Your task to perform on an android device: change keyboard looks Image 0: 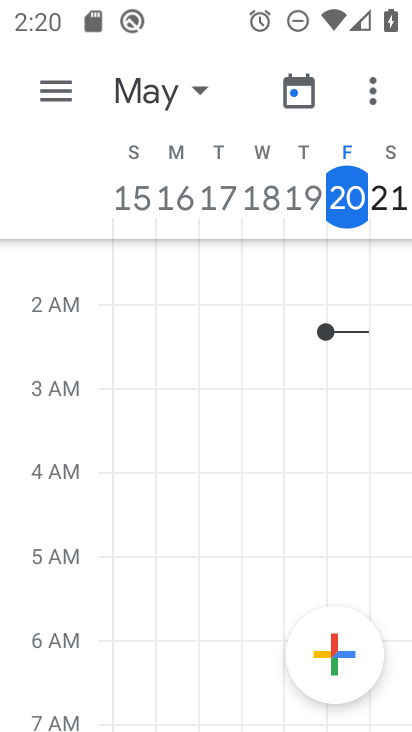
Step 0: press home button
Your task to perform on an android device: change keyboard looks Image 1: 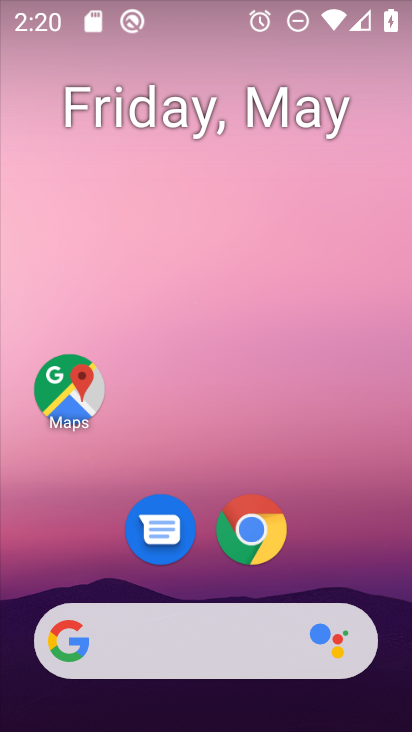
Step 1: drag from (384, 655) to (333, 141)
Your task to perform on an android device: change keyboard looks Image 2: 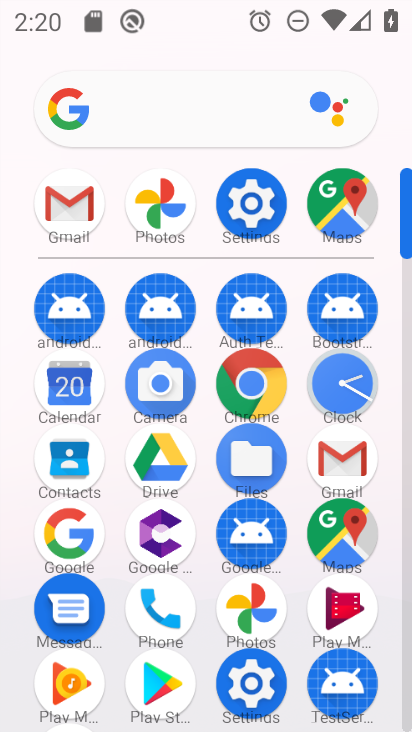
Step 2: click (256, 210)
Your task to perform on an android device: change keyboard looks Image 3: 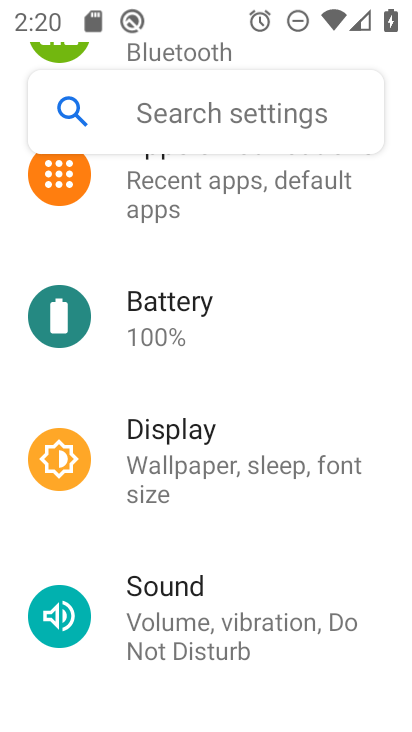
Step 3: drag from (360, 704) to (322, 314)
Your task to perform on an android device: change keyboard looks Image 4: 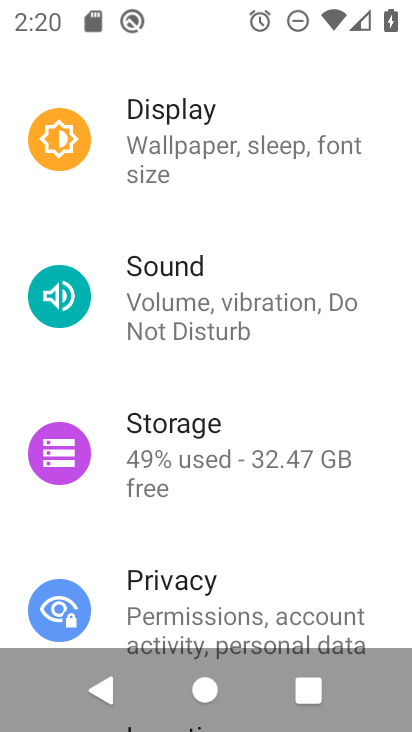
Step 4: drag from (378, 626) to (358, 211)
Your task to perform on an android device: change keyboard looks Image 5: 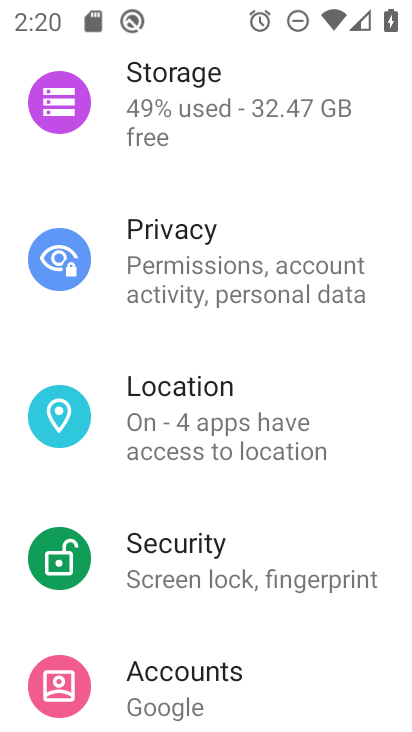
Step 5: drag from (338, 680) to (292, 292)
Your task to perform on an android device: change keyboard looks Image 6: 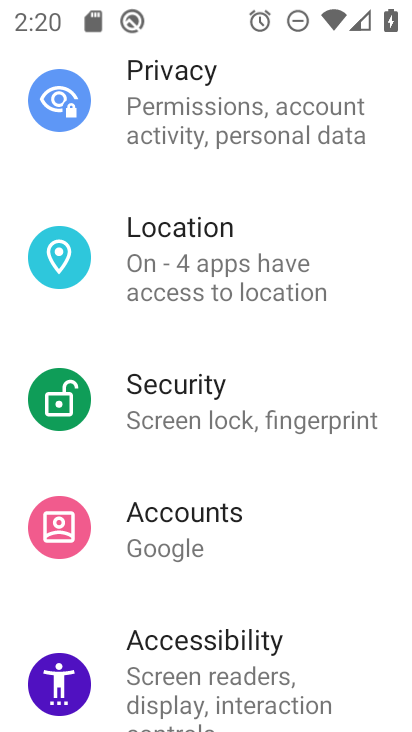
Step 6: drag from (357, 691) to (328, 317)
Your task to perform on an android device: change keyboard looks Image 7: 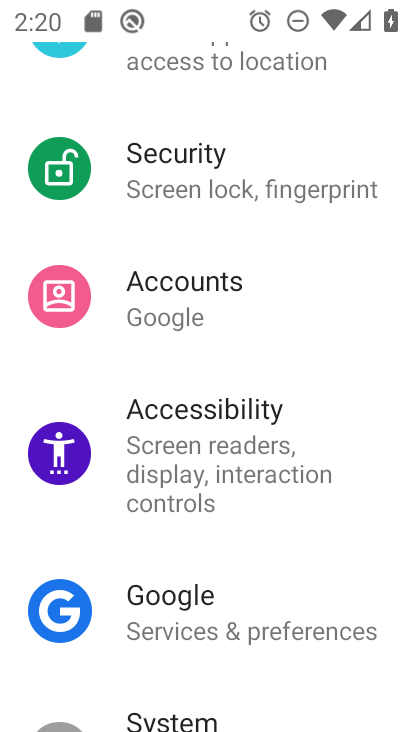
Step 7: drag from (318, 677) to (327, 216)
Your task to perform on an android device: change keyboard looks Image 8: 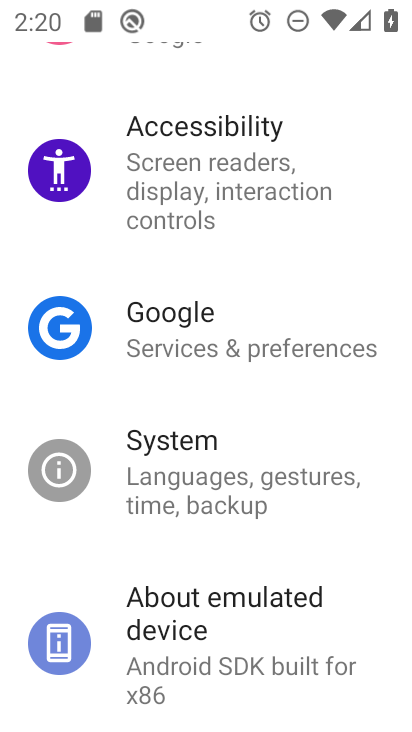
Step 8: drag from (322, 704) to (312, 352)
Your task to perform on an android device: change keyboard looks Image 9: 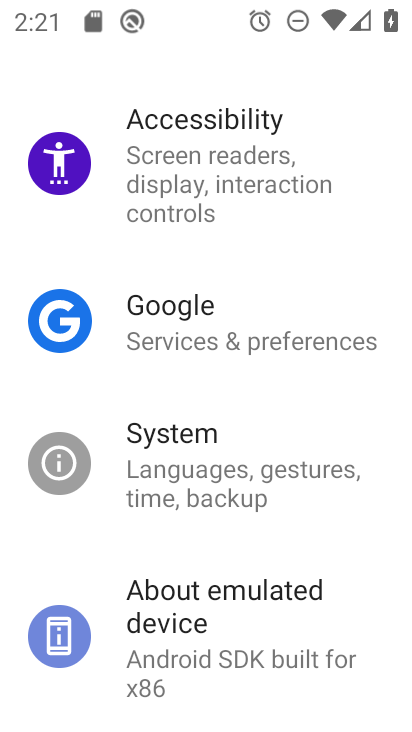
Step 9: click (198, 474)
Your task to perform on an android device: change keyboard looks Image 10: 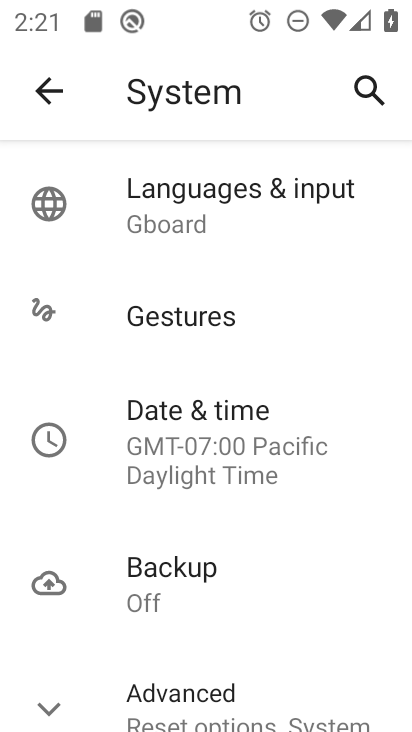
Step 10: click (185, 196)
Your task to perform on an android device: change keyboard looks Image 11: 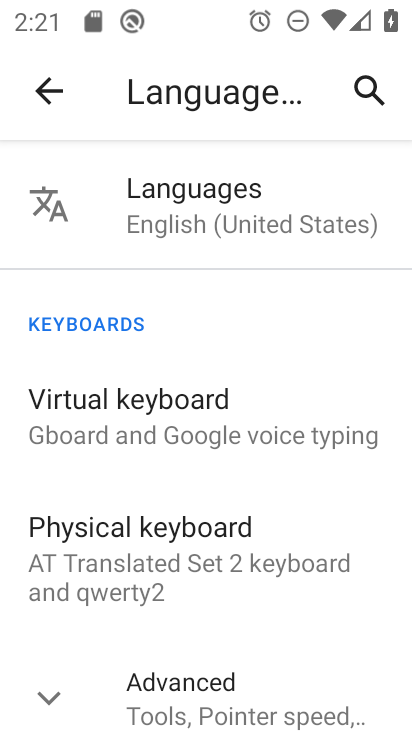
Step 11: click (99, 402)
Your task to perform on an android device: change keyboard looks Image 12: 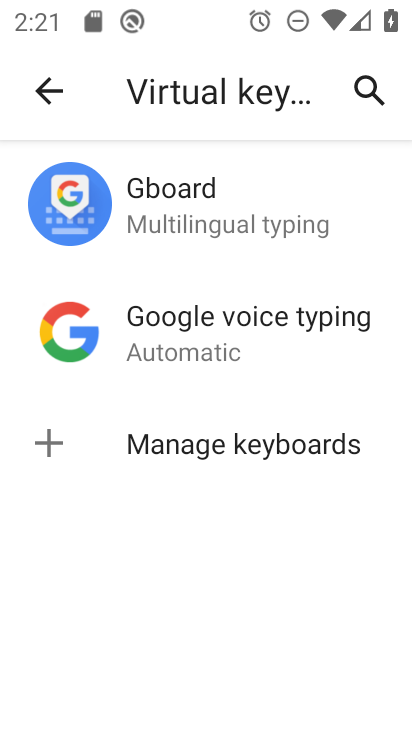
Step 12: click (181, 203)
Your task to perform on an android device: change keyboard looks Image 13: 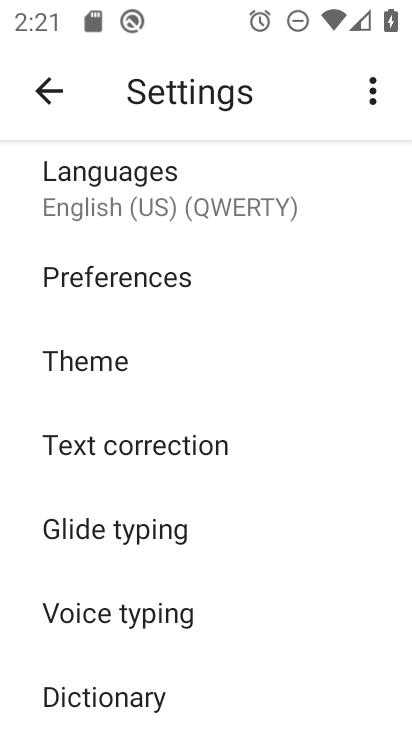
Step 13: click (88, 358)
Your task to perform on an android device: change keyboard looks Image 14: 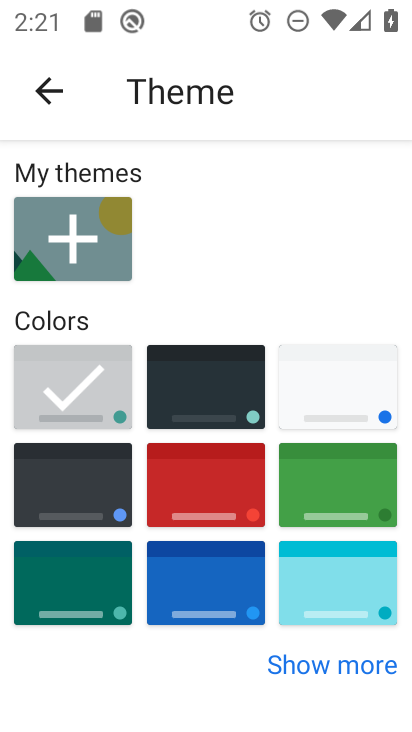
Step 14: click (229, 481)
Your task to perform on an android device: change keyboard looks Image 15: 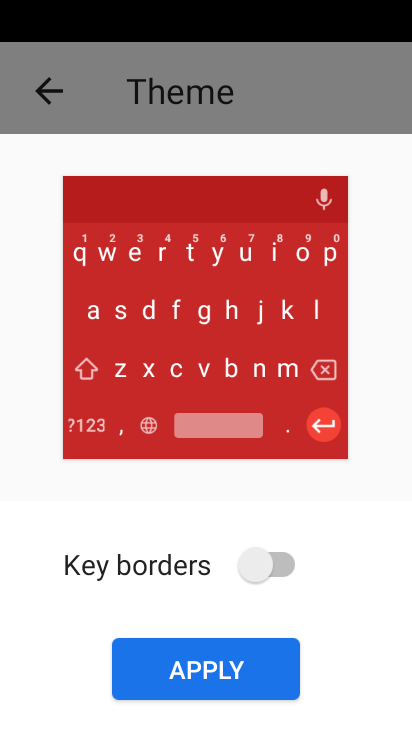
Step 15: click (276, 558)
Your task to perform on an android device: change keyboard looks Image 16: 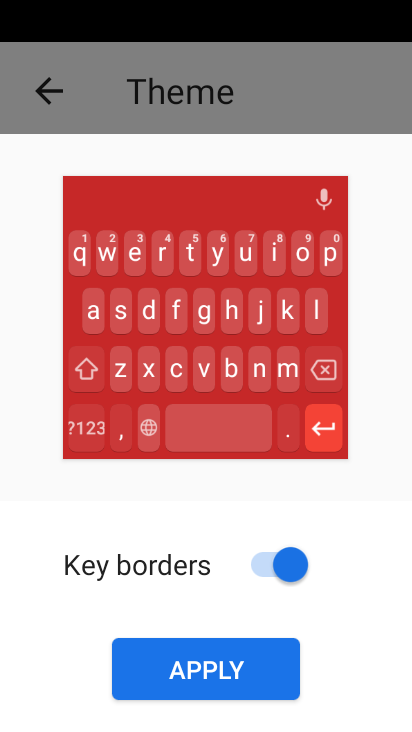
Step 16: click (231, 682)
Your task to perform on an android device: change keyboard looks Image 17: 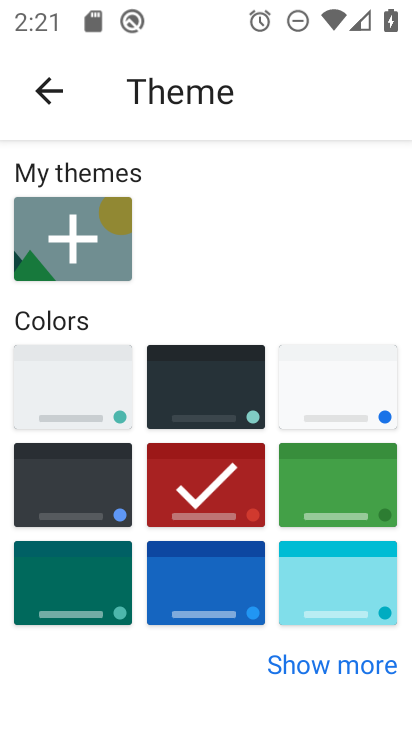
Step 17: task complete